Your task to perform on an android device: Do I have any events tomorrow? Image 0: 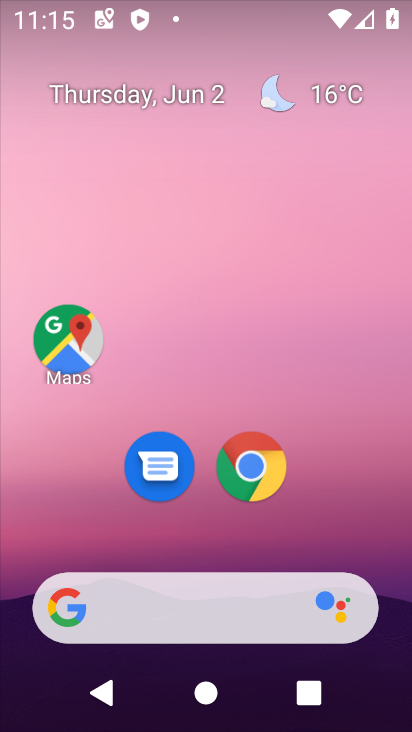
Step 0: drag from (203, 537) to (235, 84)
Your task to perform on an android device: Do I have any events tomorrow? Image 1: 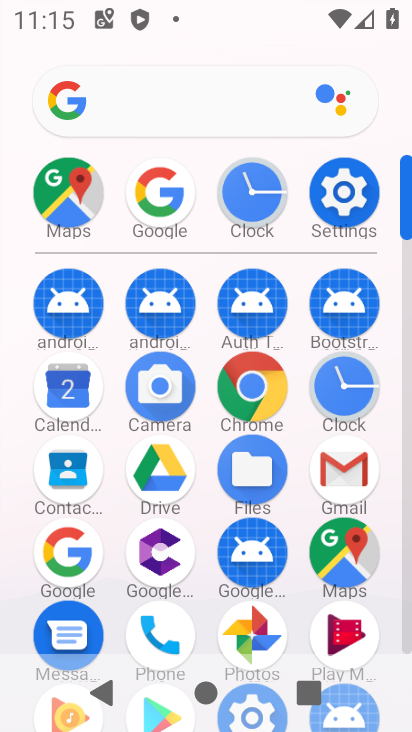
Step 1: click (78, 407)
Your task to perform on an android device: Do I have any events tomorrow? Image 2: 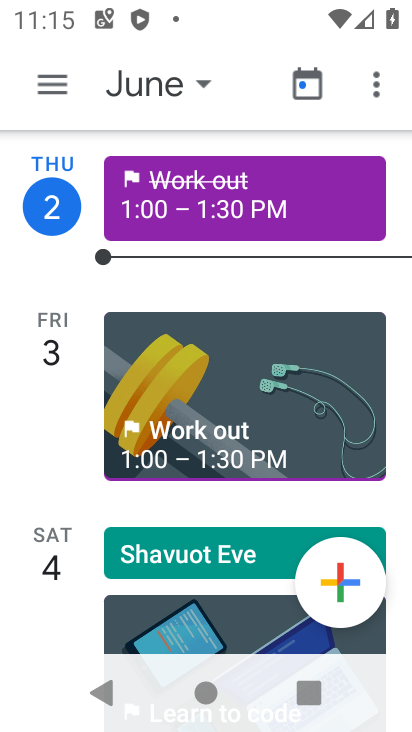
Step 2: click (204, 86)
Your task to perform on an android device: Do I have any events tomorrow? Image 3: 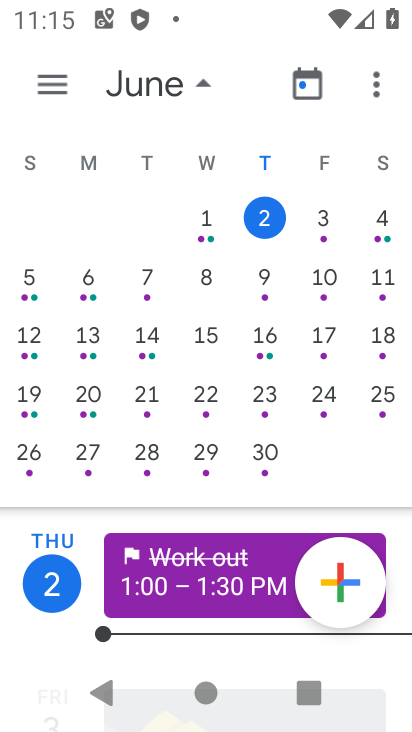
Step 3: click (318, 216)
Your task to perform on an android device: Do I have any events tomorrow? Image 4: 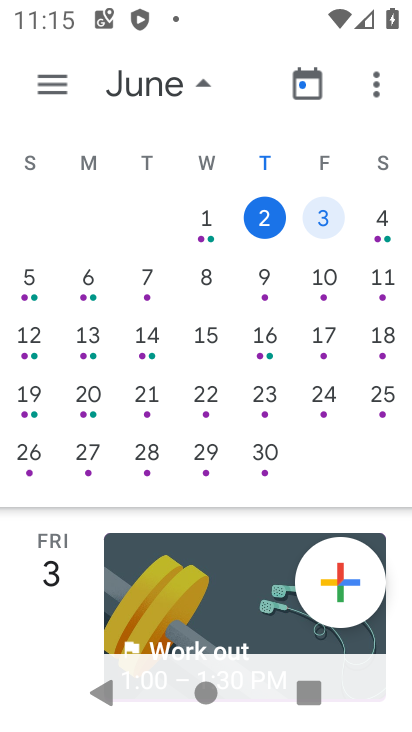
Step 4: task complete